Your task to perform on an android device: star an email in the gmail app Image 0: 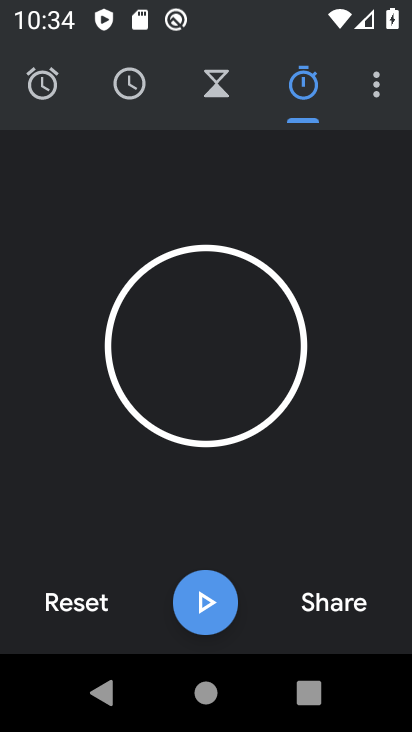
Step 0: press home button
Your task to perform on an android device: star an email in the gmail app Image 1: 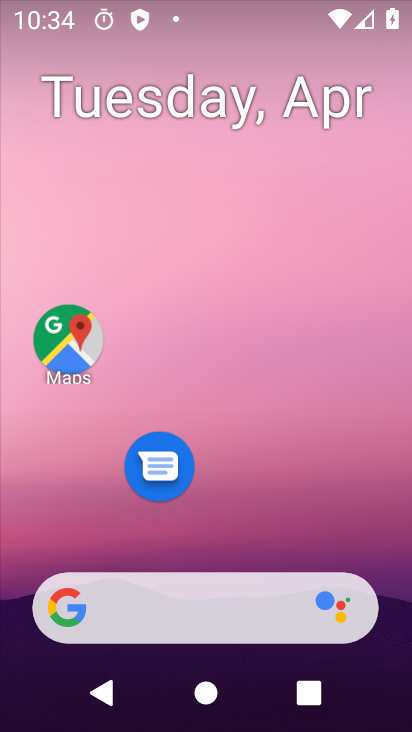
Step 1: drag from (293, 475) to (237, 45)
Your task to perform on an android device: star an email in the gmail app Image 2: 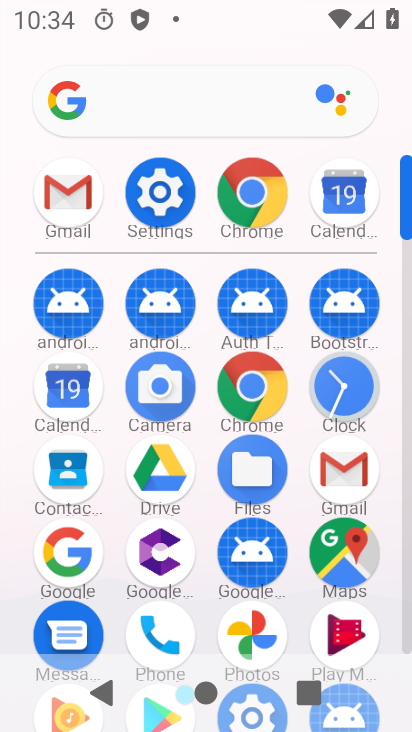
Step 2: click (368, 480)
Your task to perform on an android device: star an email in the gmail app Image 3: 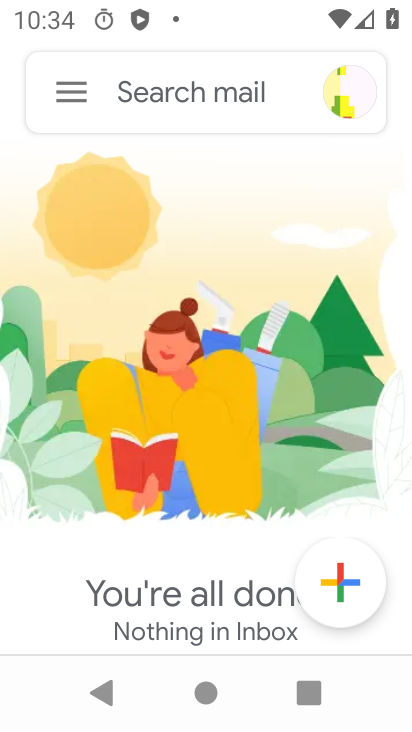
Step 3: click (70, 84)
Your task to perform on an android device: star an email in the gmail app Image 4: 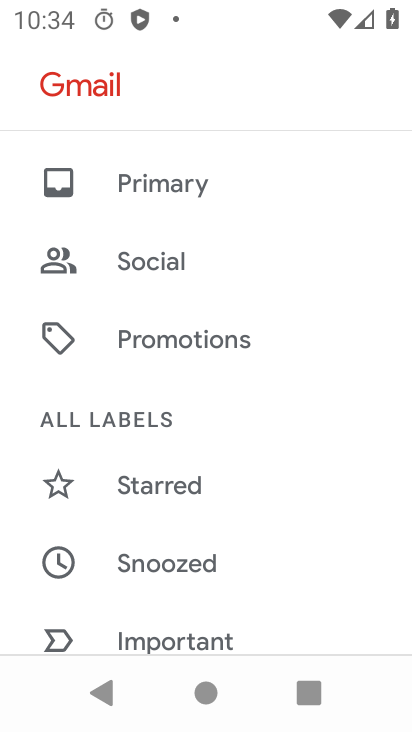
Step 4: drag from (195, 582) to (204, 270)
Your task to perform on an android device: star an email in the gmail app Image 5: 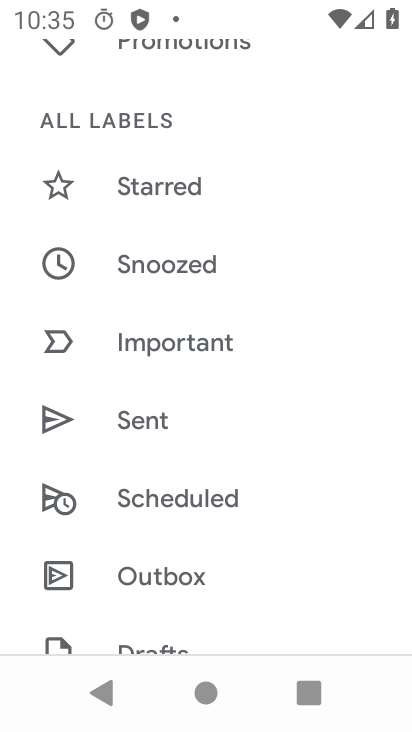
Step 5: drag from (205, 601) to (215, 422)
Your task to perform on an android device: star an email in the gmail app Image 6: 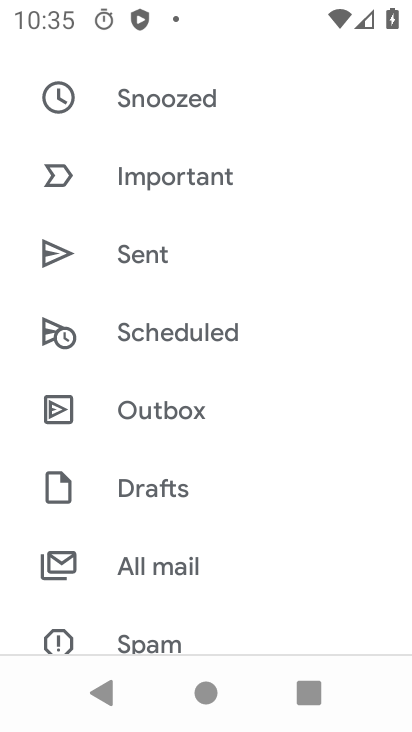
Step 6: drag from (232, 599) to (267, 299)
Your task to perform on an android device: star an email in the gmail app Image 7: 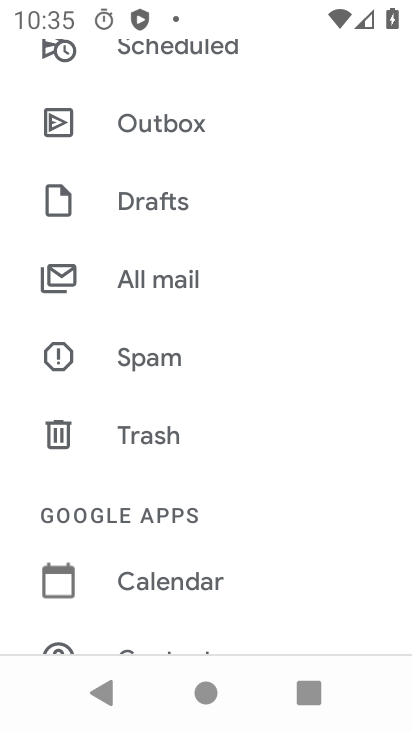
Step 7: drag from (256, 282) to (319, 672)
Your task to perform on an android device: star an email in the gmail app Image 8: 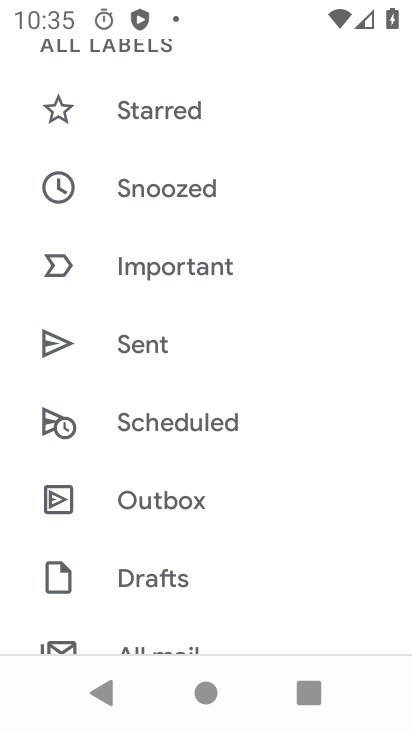
Step 8: drag from (268, 189) to (271, 719)
Your task to perform on an android device: star an email in the gmail app Image 9: 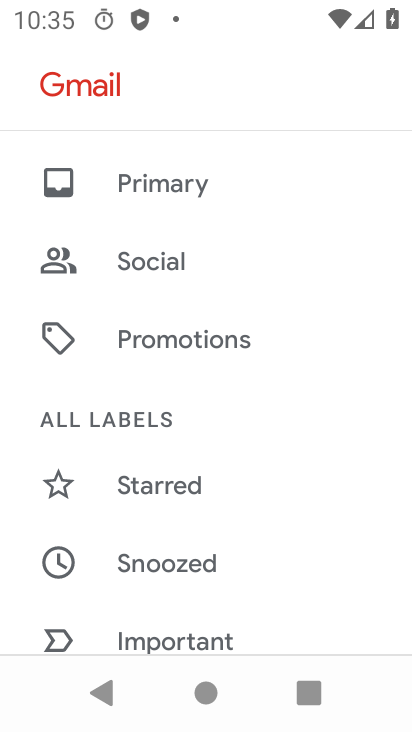
Step 9: click (225, 486)
Your task to perform on an android device: star an email in the gmail app Image 10: 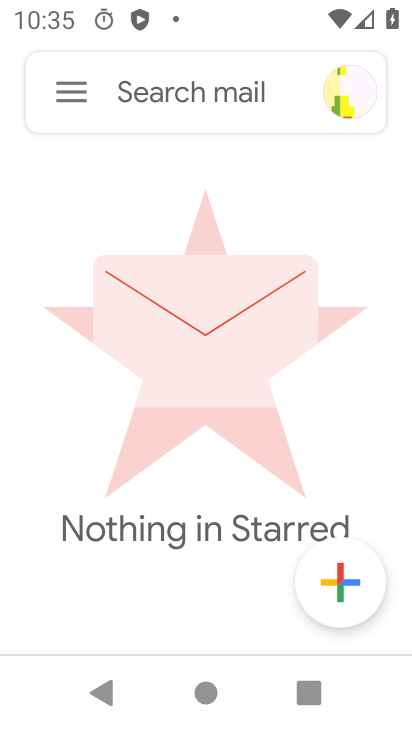
Step 10: task complete